Your task to perform on an android device: turn off smart reply in the gmail app Image 0: 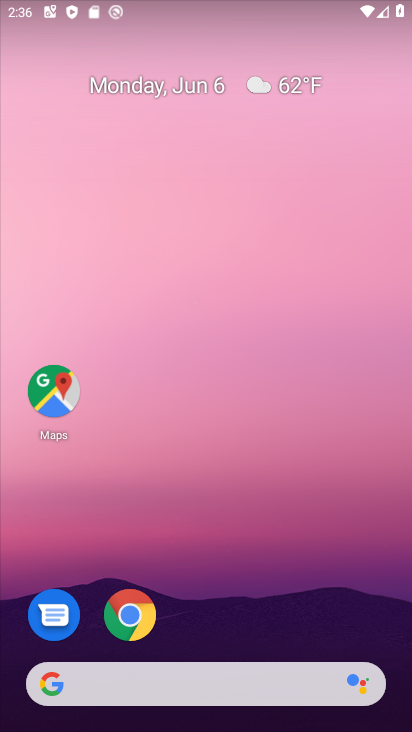
Step 0: drag from (345, 624) to (343, 25)
Your task to perform on an android device: turn off smart reply in the gmail app Image 1: 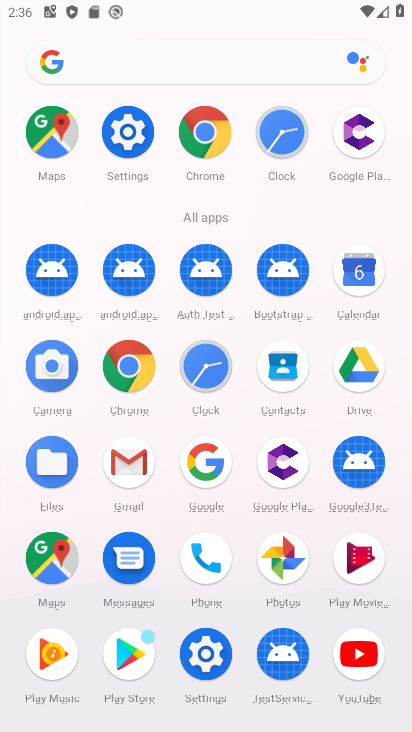
Step 1: click (145, 466)
Your task to perform on an android device: turn off smart reply in the gmail app Image 2: 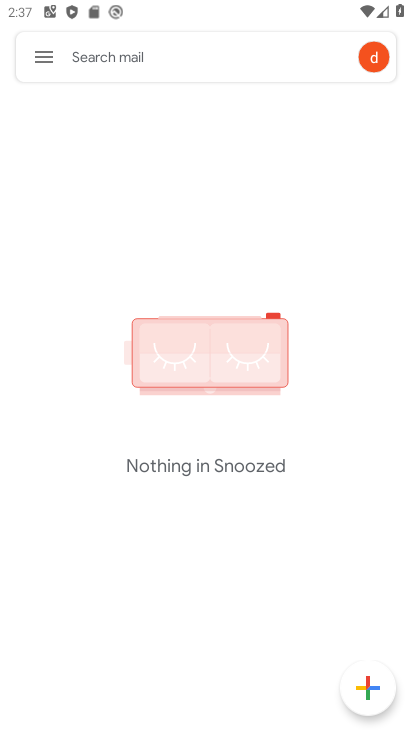
Step 2: click (42, 57)
Your task to perform on an android device: turn off smart reply in the gmail app Image 3: 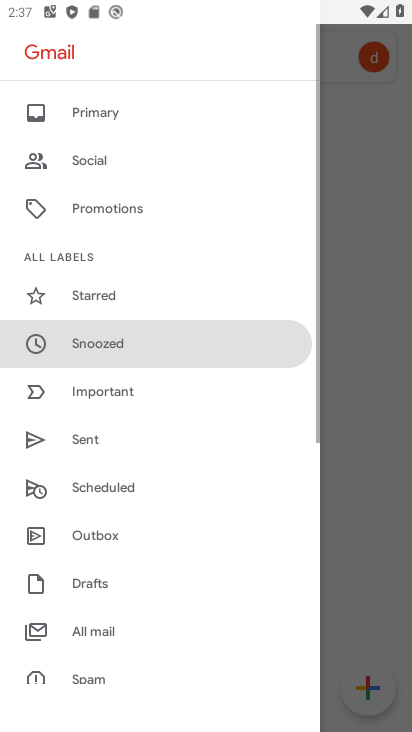
Step 3: drag from (155, 627) to (185, 123)
Your task to perform on an android device: turn off smart reply in the gmail app Image 4: 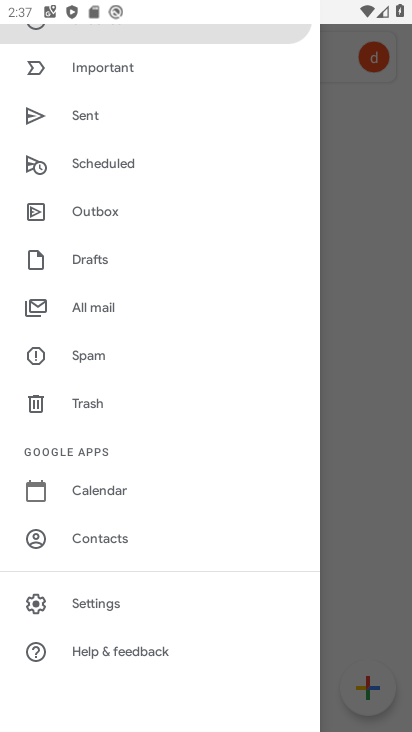
Step 4: click (85, 609)
Your task to perform on an android device: turn off smart reply in the gmail app Image 5: 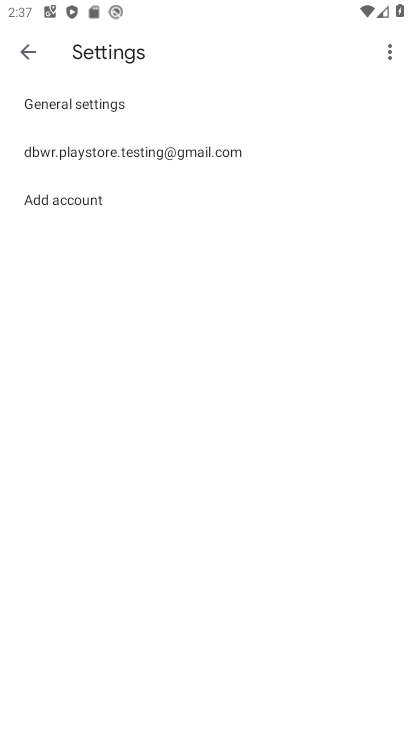
Step 5: click (138, 156)
Your task to perform on an android device: turn off smart reply in the gmail app Image 6: 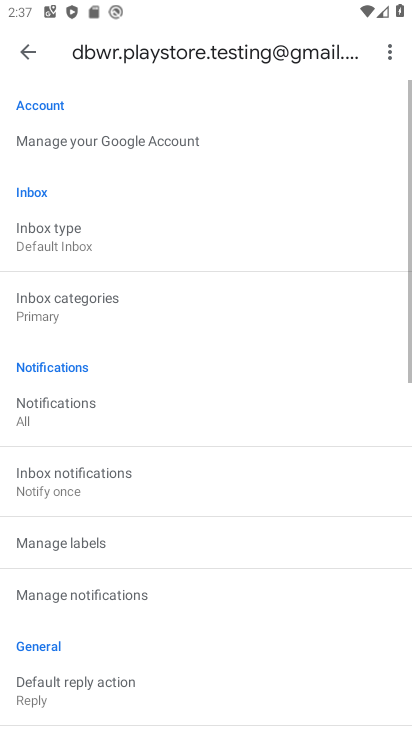
Step 6: drag from (112, 595) to (182, 64)
Your task to perform on an android device: turn off smart reply in the gmail app Image 7: 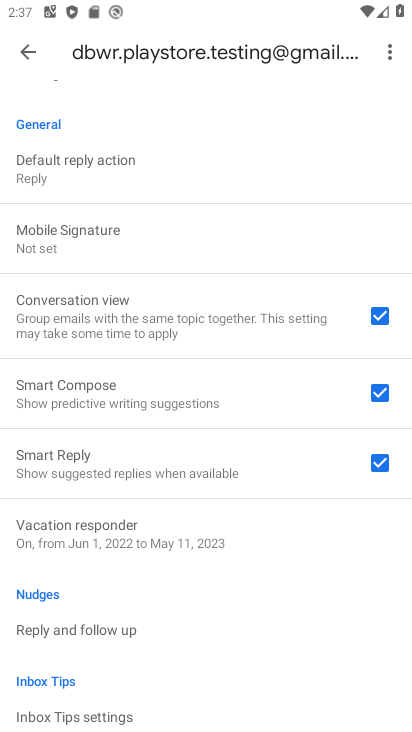
Step 7: click (381, 467)
Your task to perform on an android device: turn off smart reply in the gmail app Image 8: 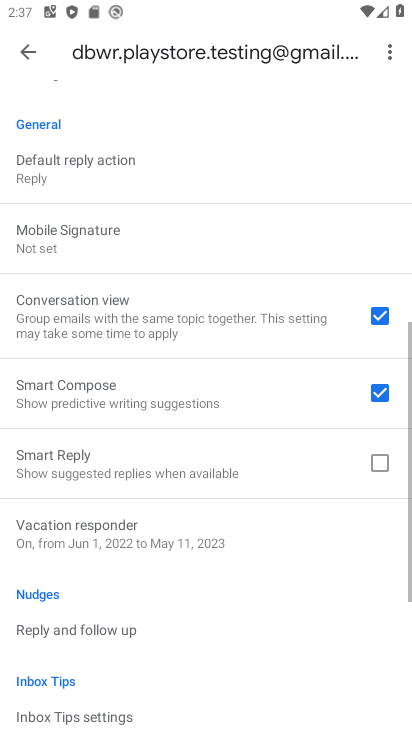
Step 8: task complete